Your task to perform on an android device: Open location settings Image 0: 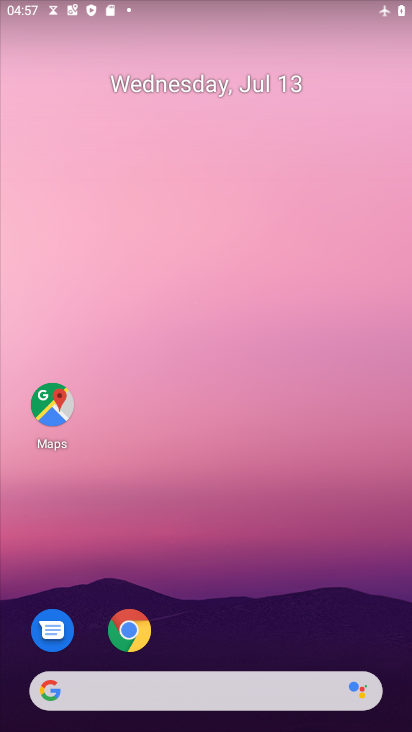
Step 0: drag from (231, 719) to (172, 11)
Your task to perform on an android device: Open location settings Image 1: 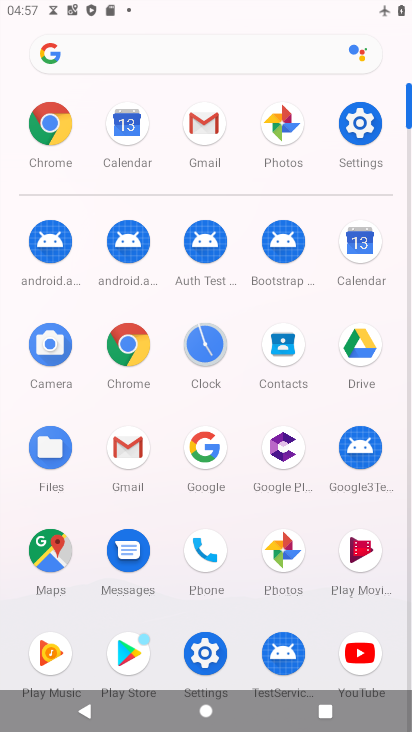
Step 1: click (359, 122)
Your task to perform on an android device: Open location settings Image 2: 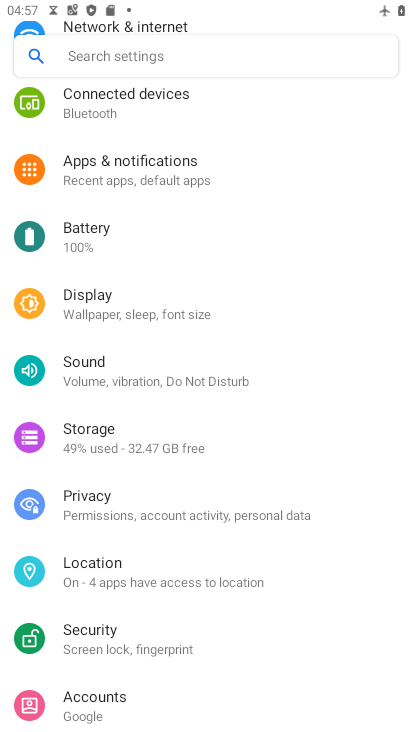
Step 2: click (122, 576)
Your task to perform on an android device: Open location settings Image 3: 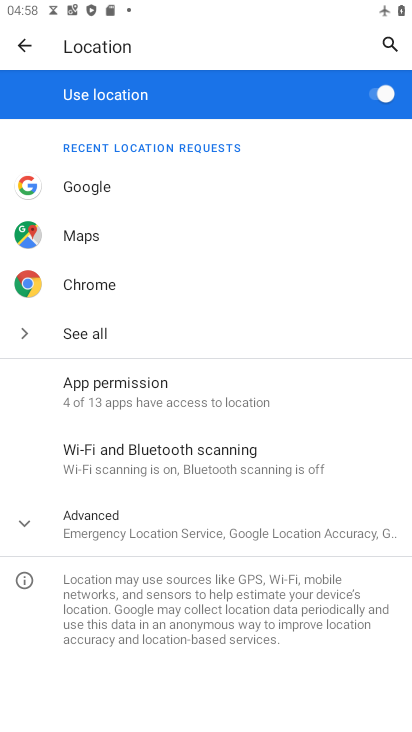
Step 3: task complete